Your task to perform on an android device: Go to Google Image 0: 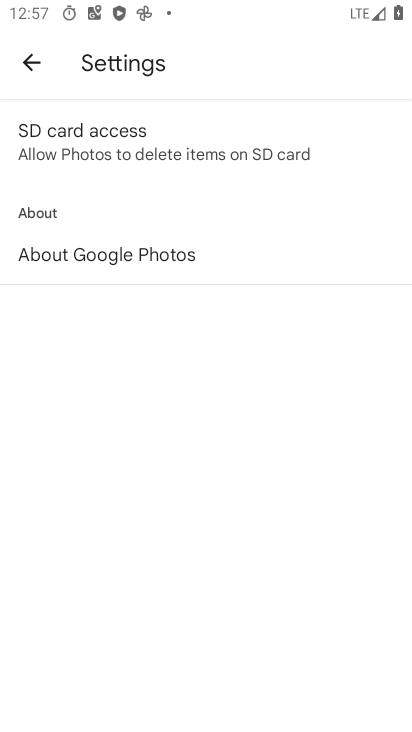
Step 0: press home button
Your task to perform on an android device: Go to Google Image 1: 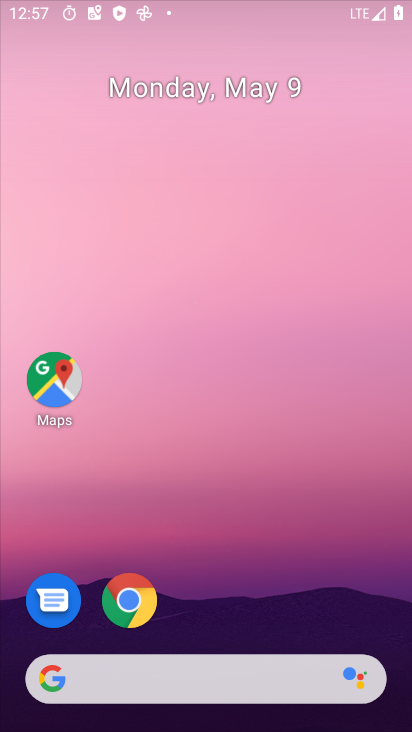
Step 1: drag from (178, 578) to (210, 188)
Your task to perform on an android device: Go to Google Image 2: 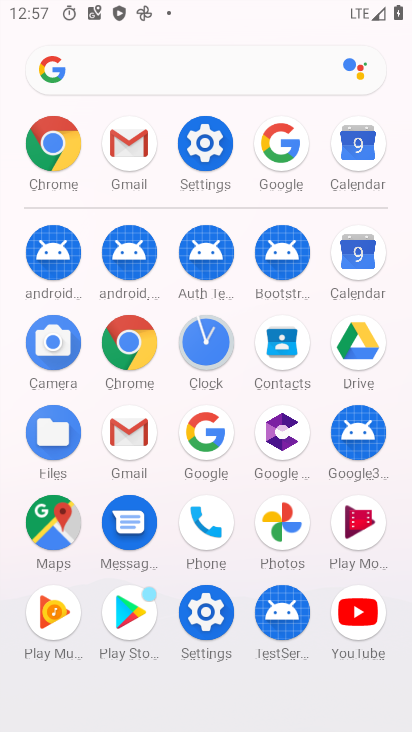
Step 2: click (213, 431)
Your task to perform on an android device: Go to Google Image 3: 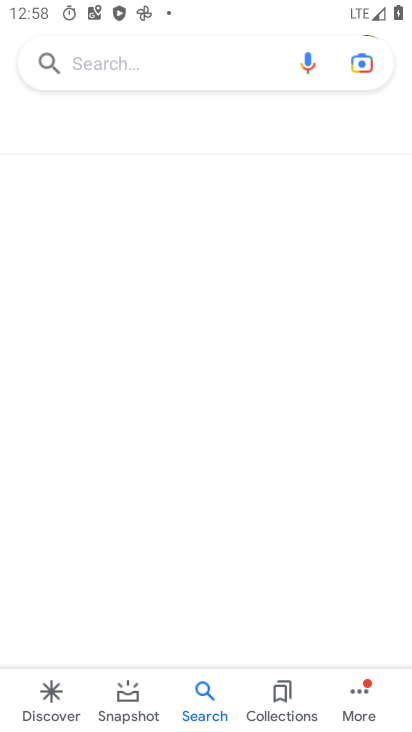
Step 3: task complete